Your task to perform on an android device: turn off wifi Image 0: 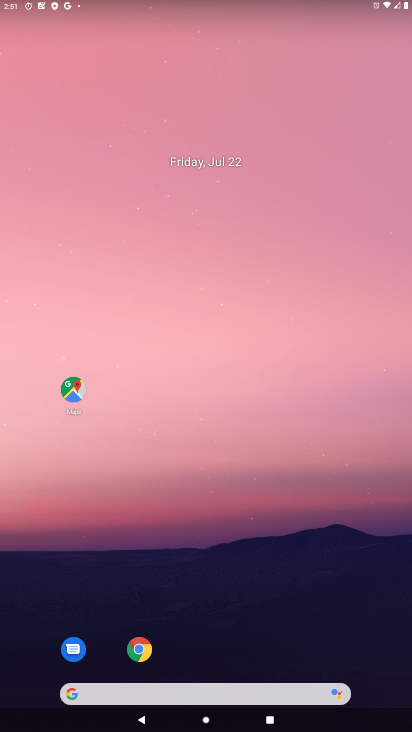
Step 0: drag from (233, 576) to (200, 130)
Your task to perform on an android device: turn off wifi Image 1: 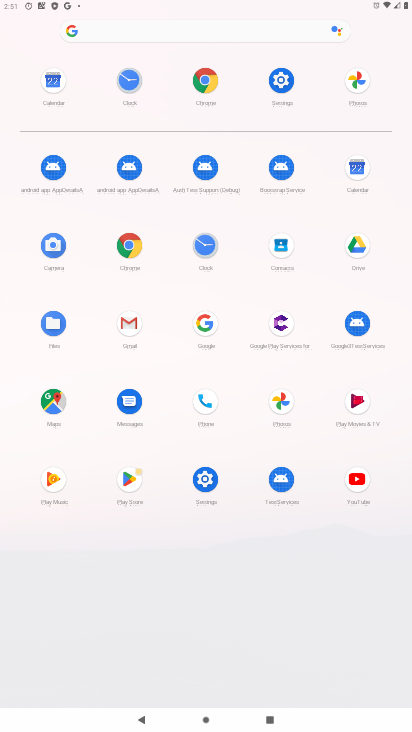
Step 1: click (279, 78)
Your task to perform on an android device: turn off wifi Image 2: 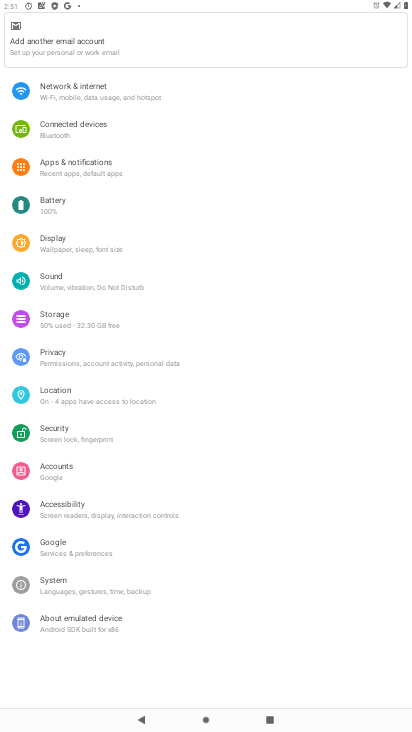
Step 2: click (78, 91)
Your task to perform on an android device: turn off wifi Image 3: 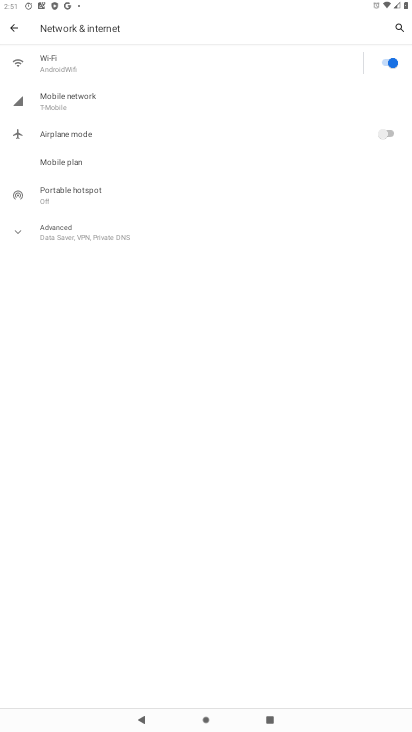
Step 3: click (387, 64)
Your task to perform on an android device: turn off wifi Image 4: 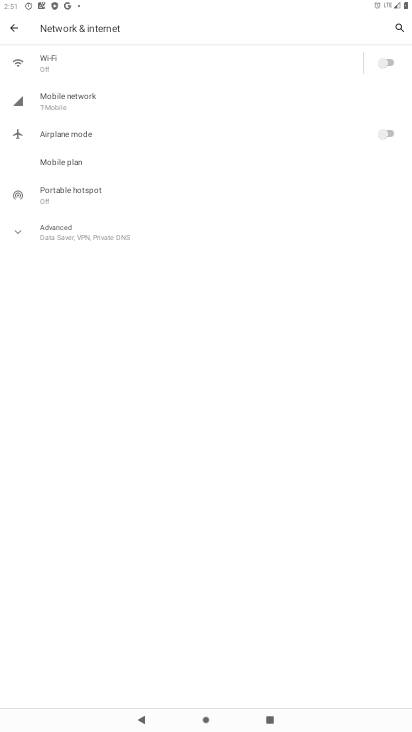
Step 4: task complete